Your task to perform on an android device: change the upload size in google photos Image 0: 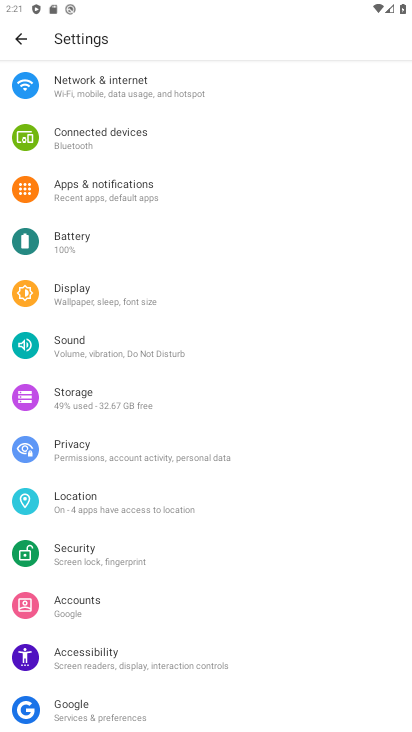
Step 0: press back button
Your task to perform on an android device: change the upload size in google photos Image 1: 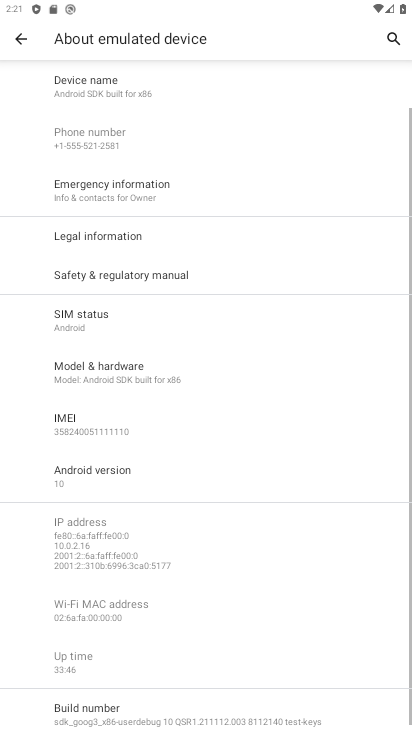
Step 1: press back button
Your task to perform on an android device: change the upload size in google photos Image 2: 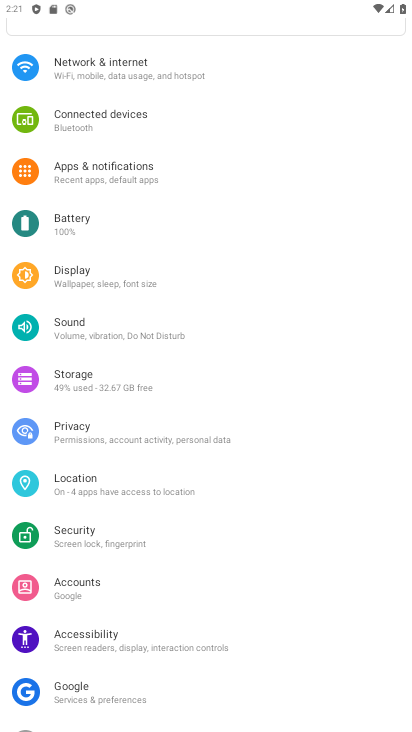
Step 2: press back button
Your task to perform on an android device: change the upload size in google photos Image 3: 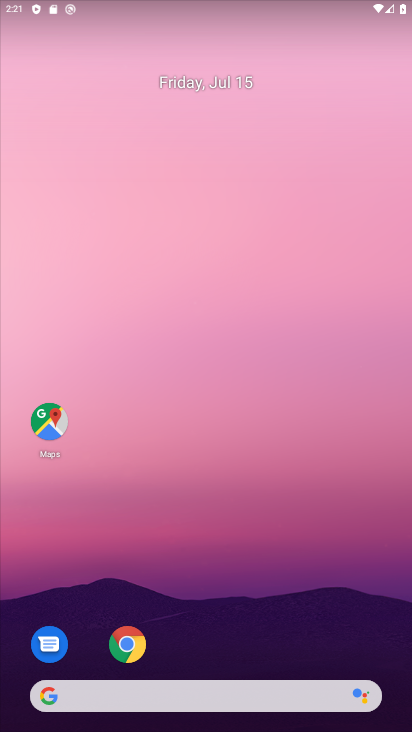
Step 3: drag from (222, 639) to (311, 0)
Your task to perform on an android device: change the upload size in google photos Image 4: 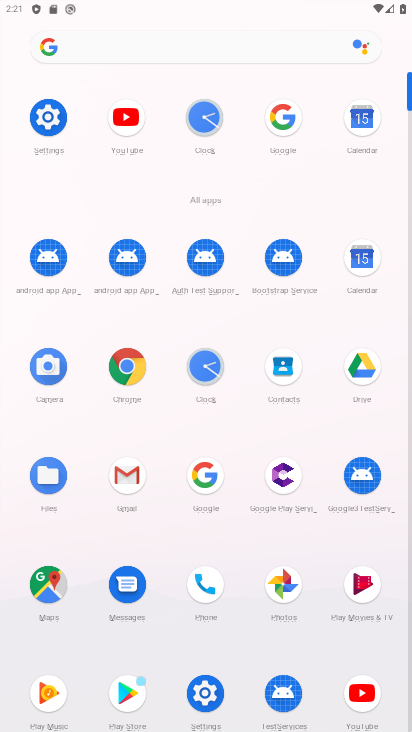
Step 4: click (282, 584)
Your task to perform on an android device: change the upload size in google photos Image 5: 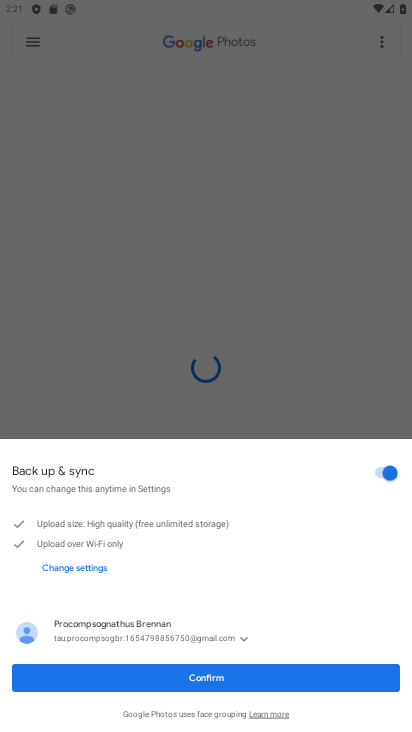
Step 5: click (218, 678)
Your task to perform on an android device: change the upload size in google photos Image 6: 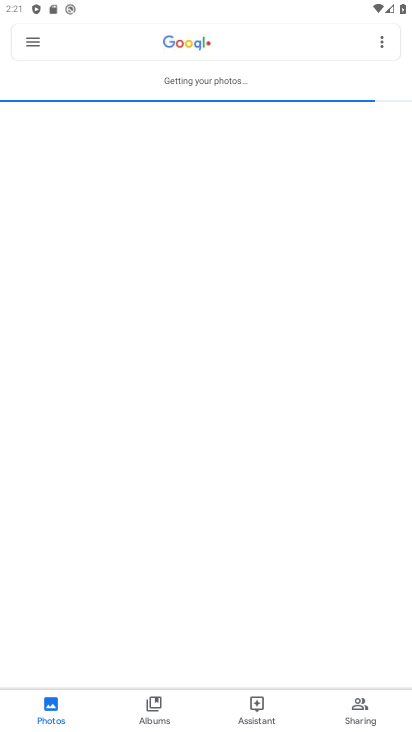
Step 6: click (29, 40)
Your task to perform on an android device: change the upload size in google photos Image 7: 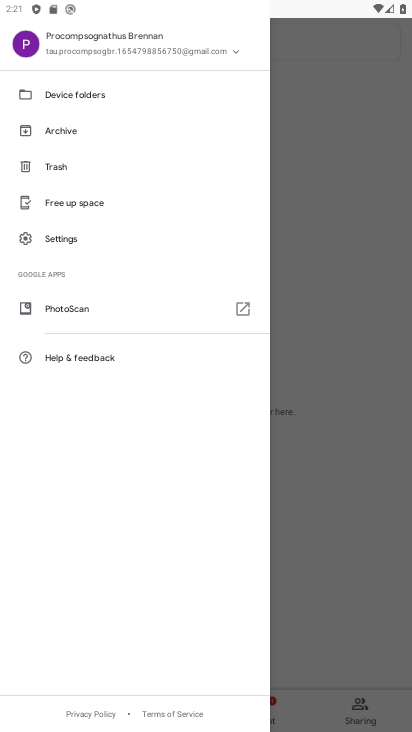
Step 7: click (74, 243)
Your task to perform on an android device: change the upload size in google photos Image 8: 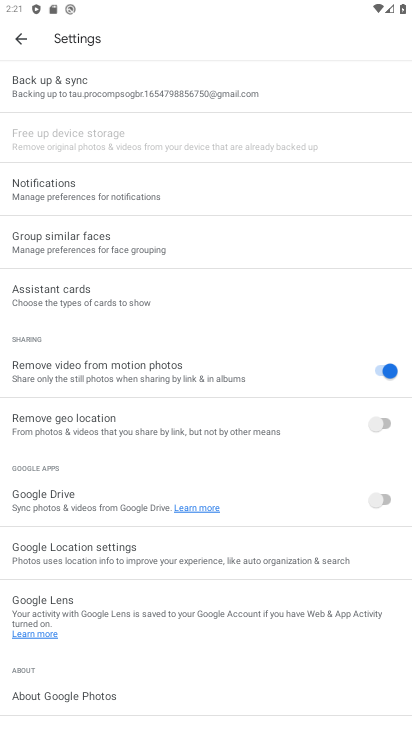
Step 8: click (96, 81)
Your task to perform on an android device: change the upload size in google photos Image 9: 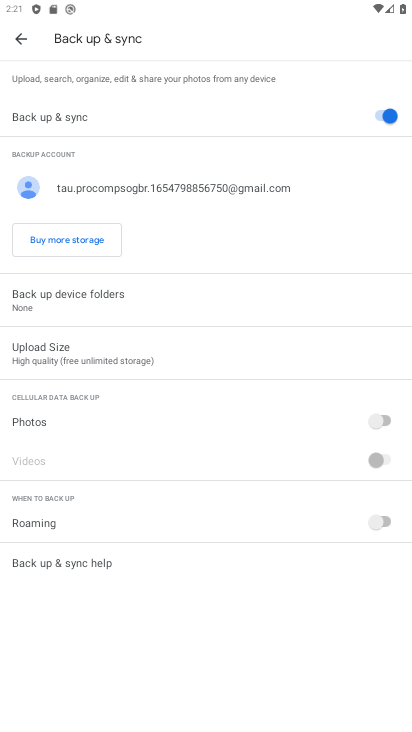
Step 9: click (37, 353)
Your task to perform on an android device: change the upload size in google photos Image 10: 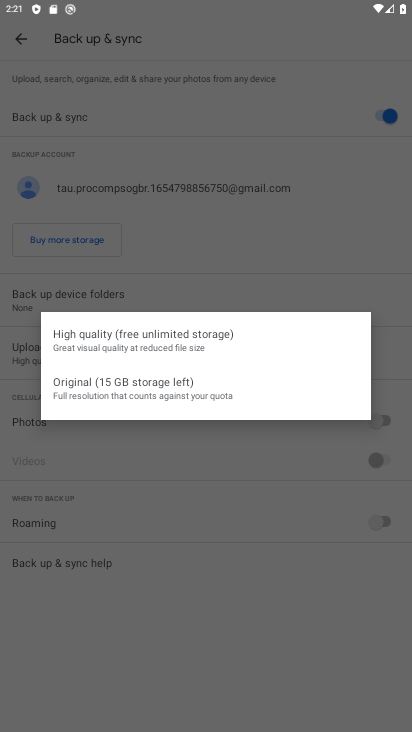
Step 10: click (108, 380)
Your task to perform on an android device: change the upload size in google photos Image 11: 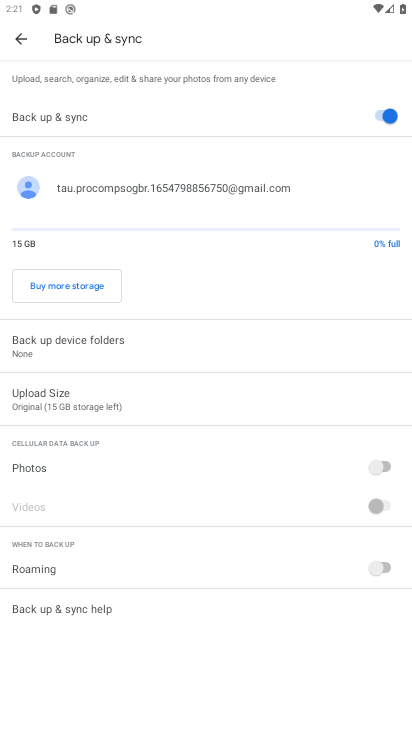
Step 11: task complete